Your task to perform on an android device: Go to location settings Image 0: 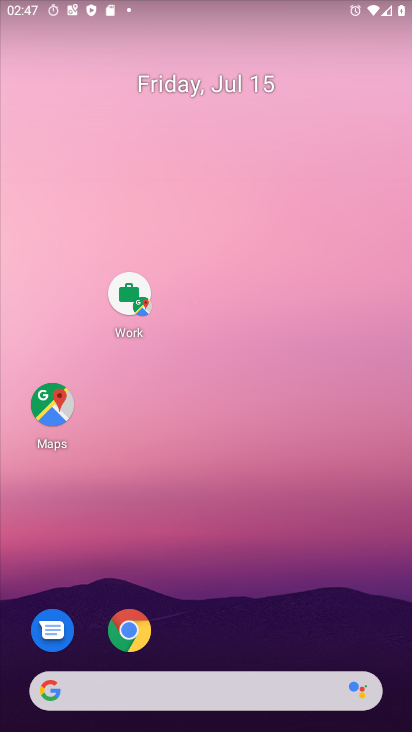
Step 0: drag from (232, 629) to (234, 251)
Your task to perform on an android device: Go to location settings Image 1: 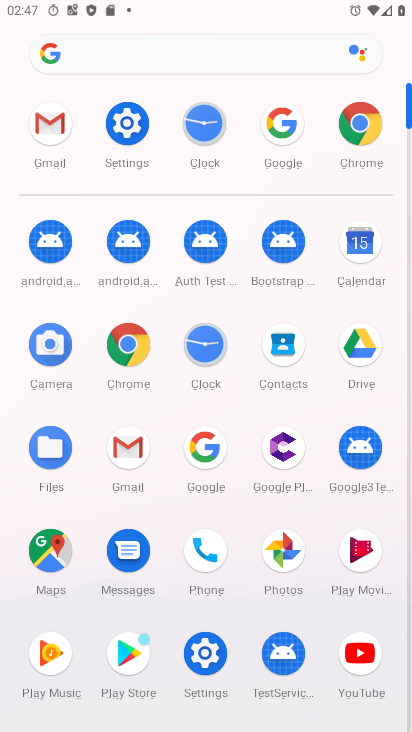
Step 1: click (128, 135)
Your task to perform on an android device: Go to location settings Image 2: 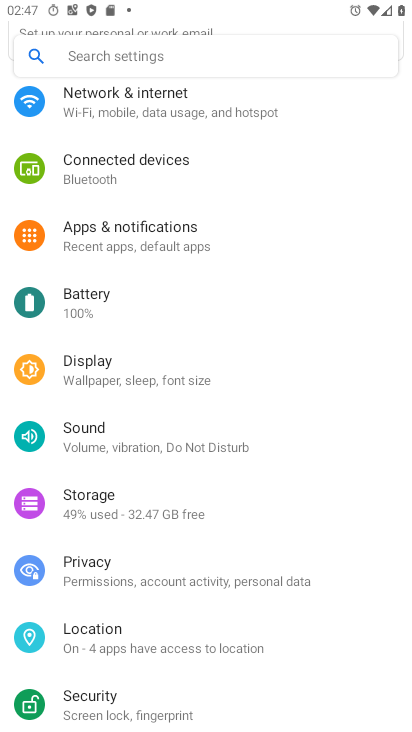
Step 2: click (120, 642)
Your task to perform on an android device: Go to location settings Image 3: 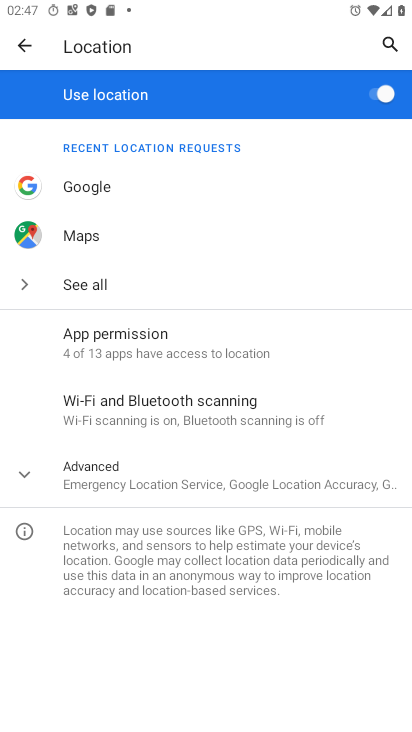
Step 3: task complete